Your task to perform on an android device: toggle notifications settings in the gmail app Image 0: 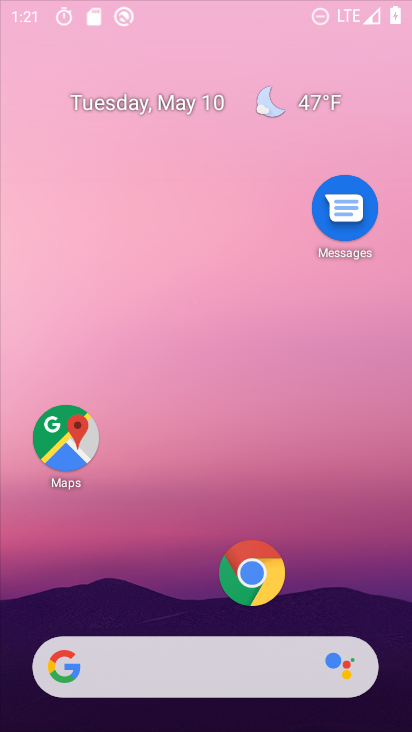
Step 0: click (387, 159)
Your task to perform on an android device: toggle notifications settings in the gmail app Image 1: 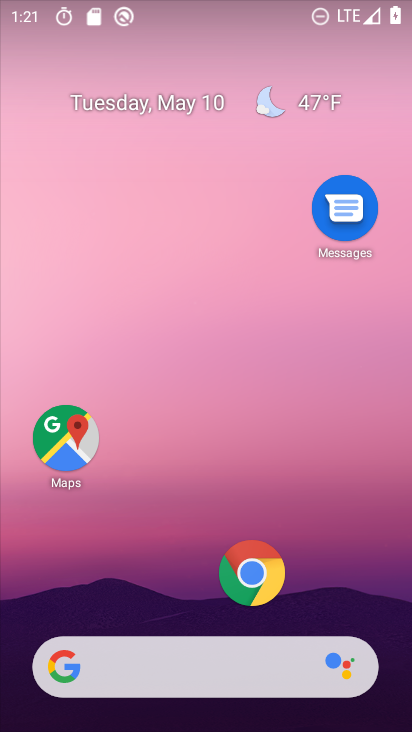
Step 1: click (271, 250)
Your task to perform on an android device: toggle notifications settings in the gmail app Image 2: 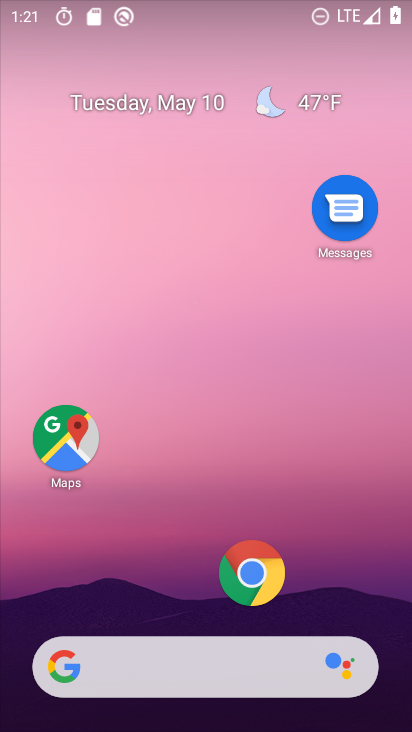
Step 2: drag from (204, 548) to (240, 228)
Your task to perform on an android device: toggle notifications settings in the gmail app Image 3: 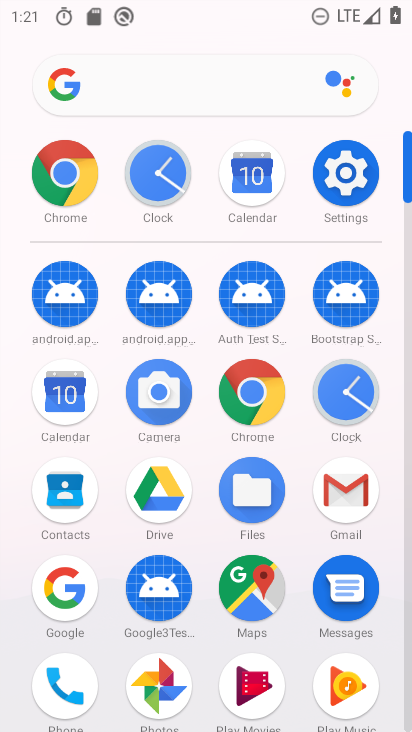
Step 3: click (336, 481)
Your task to perform on an android device: toggle notifications settings in the gmail app Image 4: 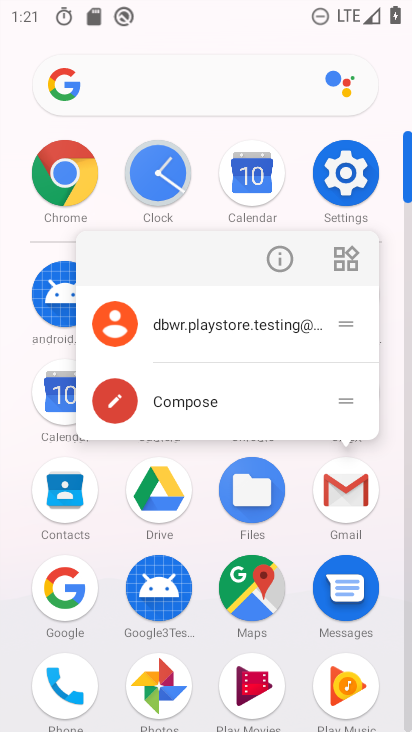
Step 4: click (280, 245)
Your task to perform on an android device: toggle notifications settings in the gmail app Image 5: 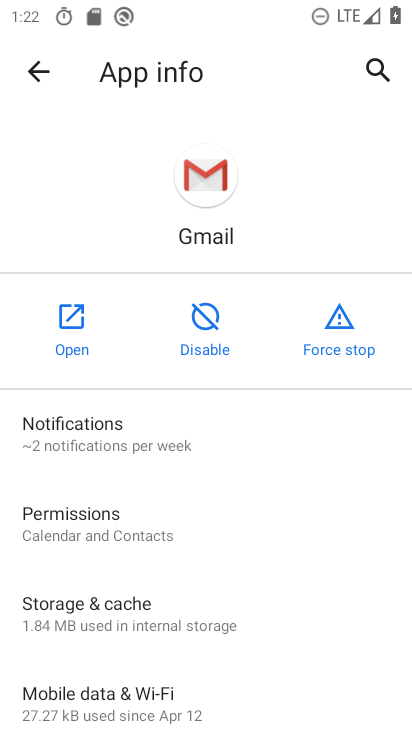
Step 5: click (83, 319)
Your task to perform on an android device: toggle notifications settings in the gmail app Image 6: 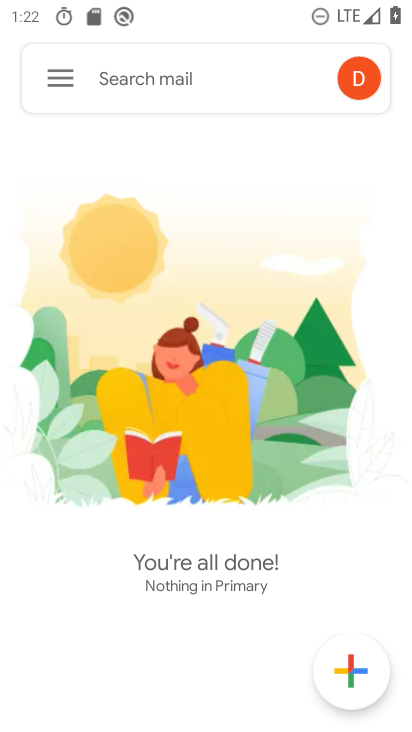
Step 6: click (46, 83)
Your task to perform on an android device: toggle notifications settings in the gmail app Image 7: 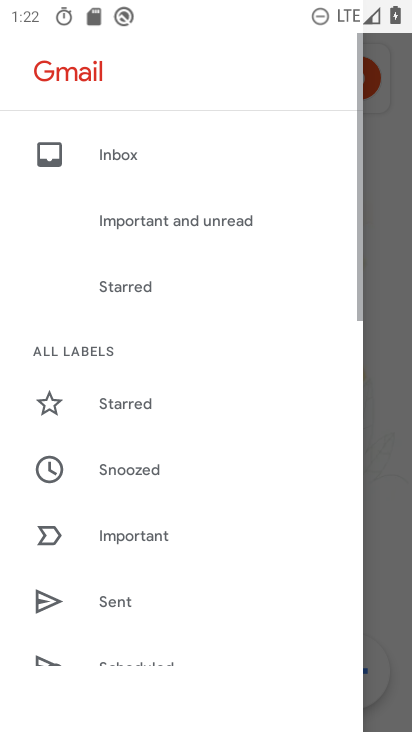
Step 7: drag from (105, 586) to (228, 9)
Your task to perform on an android device: toggle notifications settings in the gmail app Image 8: 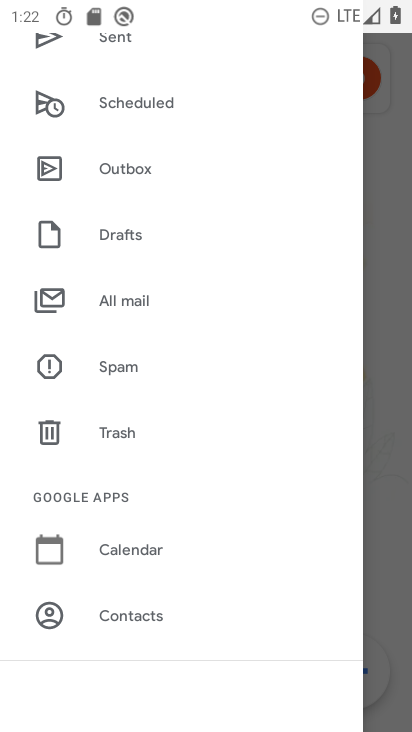
Step 8: drag from (137, 564) to (241, 67)
Your task to perform on an android device: toggle notifications settings in the gmail app Image 9: 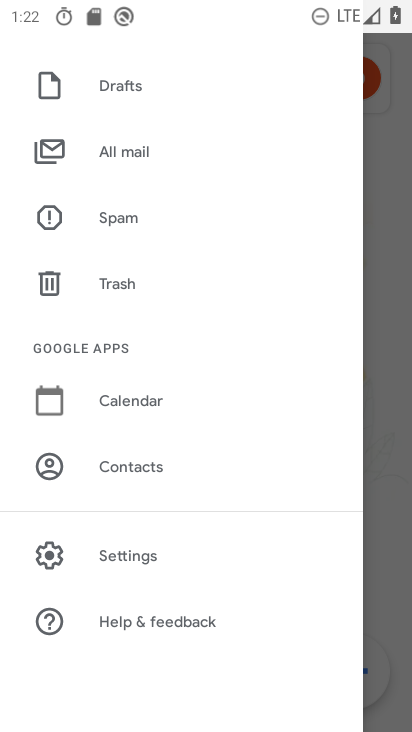
Step 9: click (147, 544)
Your task to perform on an android device: toggle notifications settings in the gmail app Image 10: 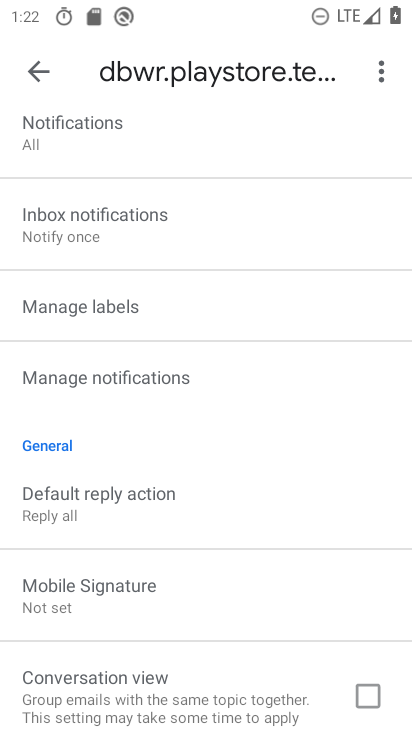
Step 10: drag from (163, 593) to (249, 195)
Your task to perform on an android device: toggle notifications settings in the gmail app Image 11: 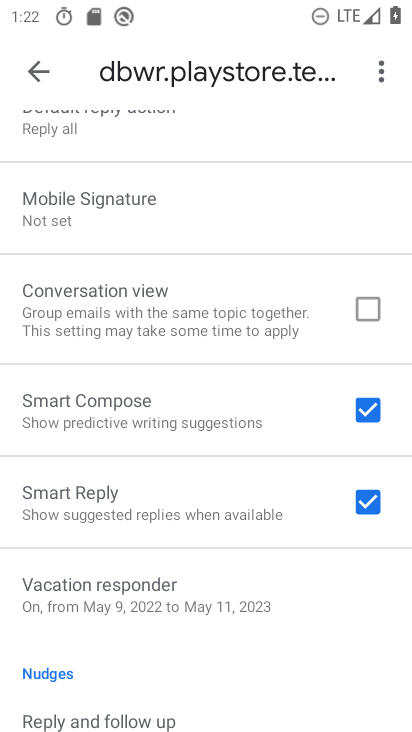
Step 11: drag from (143, 583) to (215, 724)
Your task to perform on an android device: toggle notifications settings in the gmail app Image 12: 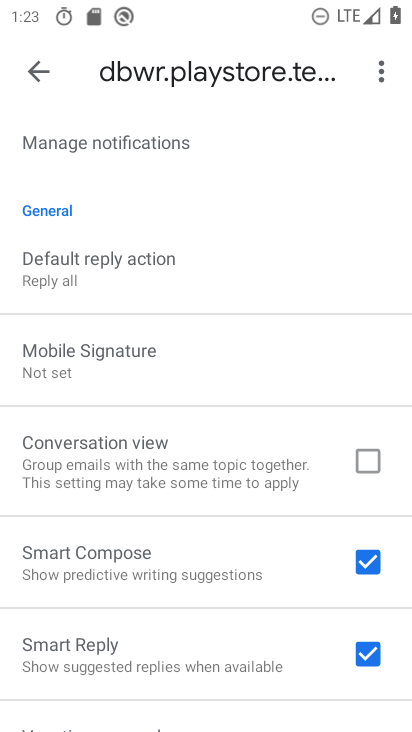
Step 12: click (115, 140)
Your task to perform on an android device: toggle notifications settings in the gmail app Image 13: 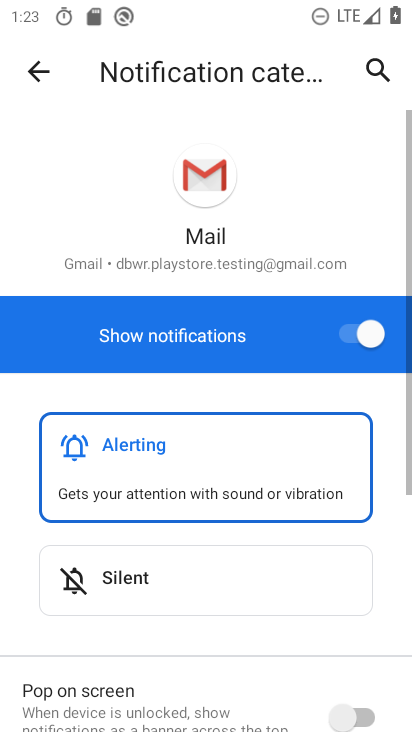
Step 13: drag from (213, 564) to (288, 103)
Your task to perform on an android device: toggle notifications settings in the gmail app Image 14: 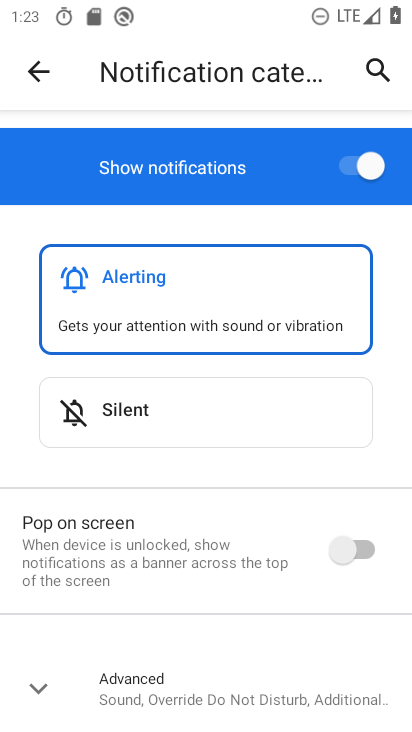
Step 14: click (366, 174)
Your task to perform on an android device: toggle notifications settings in the gmail app Image 15: 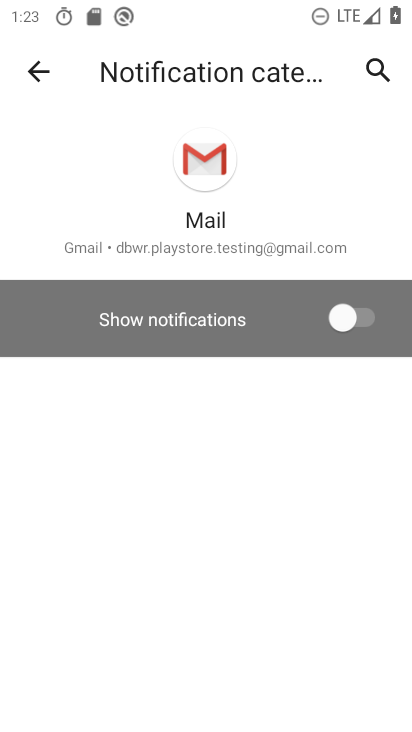
Step 15: task complete